Your task to perform on an android device: What time is it in Moscow? Image 0: 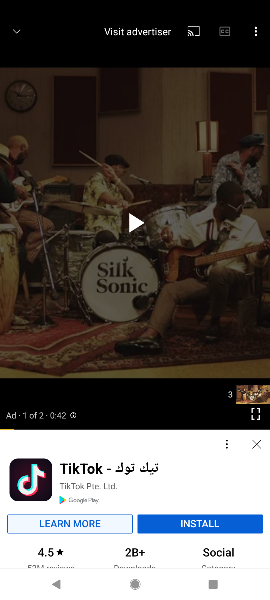
Step 0: press home button
Your task to perform on an android device: What time is it in Moscow? Image 1: 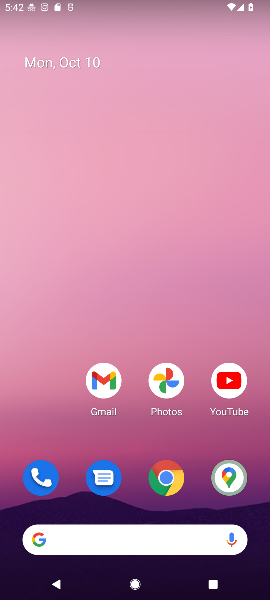
Step 1: click (202, 484)
Your task to perform on an android device: What time is it in Moscow? Image 2: 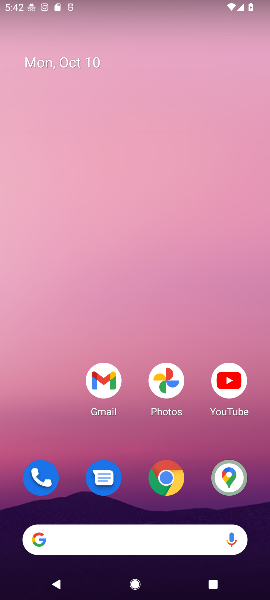
Step 2: click (160, 482)
Your task to perform on an android device: What time is it in Moscow? Image 3: 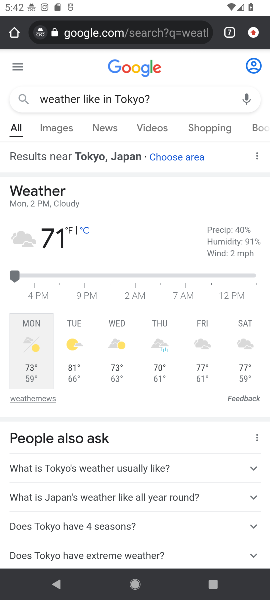
Step 3: click (160, 26)
Your task to perform on an android device: What time is it in Moscow? Image 4: 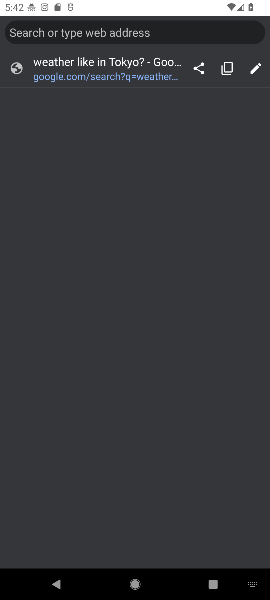
Step 4: type " time is it in Moscow?"
Your task to perform on an android device: What time is it in Moscow? Image 5: 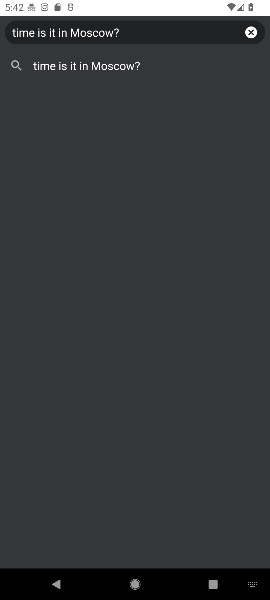
Step 5: click (106, 74)
Your task to perform on an android device: What time is it in Moscow? Image 6: 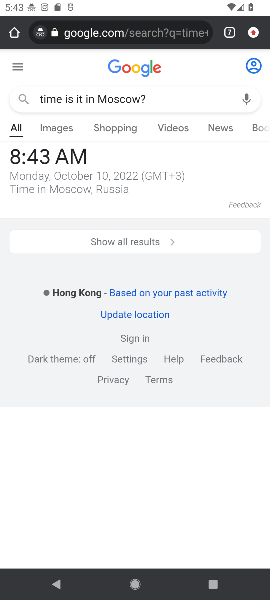
Step 6: task complete